Your task to perform on an android device: Go to wifi settings Image 0: 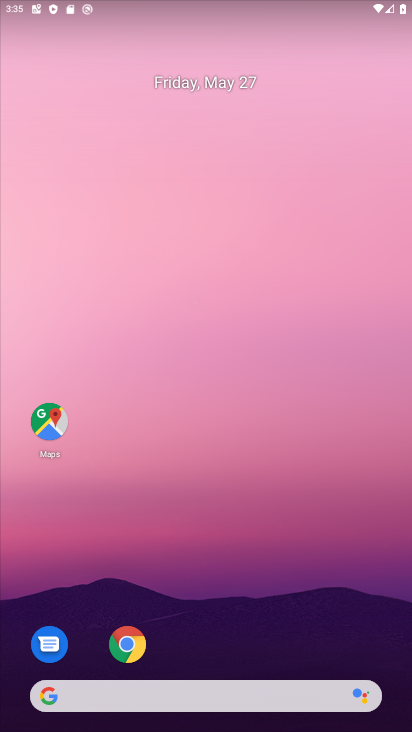
Step 0: drag from (296, 581) to (239, 27)
Your task to perform on an android device: Go to wifi settings Image 1: 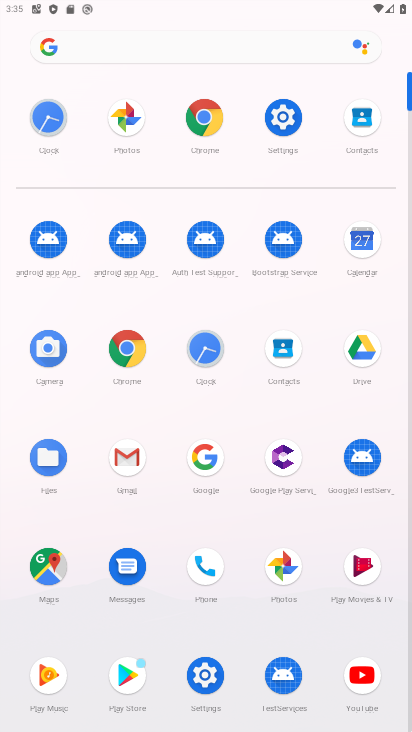
Step 1: click (293, 118)
Your task to perform on an android device: Go to wifi settings Image 2: 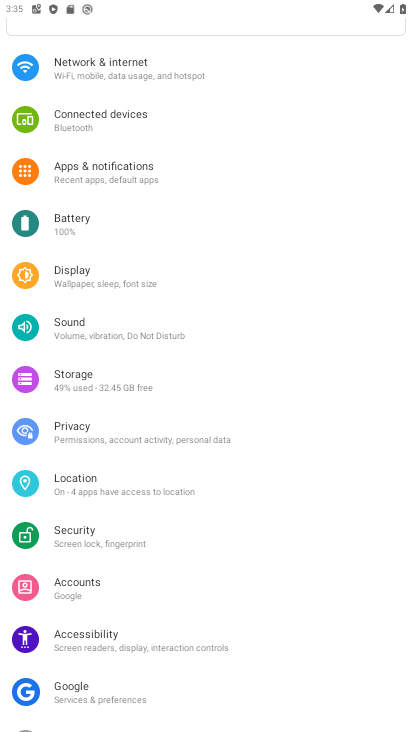
Step 2: drag from (186, 106) to (242, 646)
Your task to perform on an android device: Go to wifi settings Image 3: 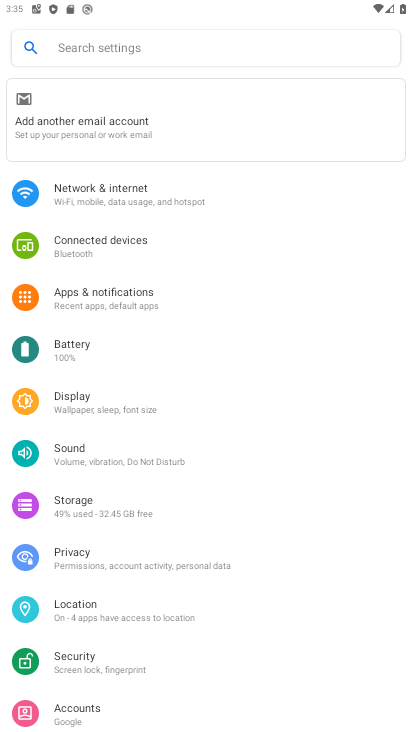
Step 3: click (197, 182)
Your task to perform on an android device: Go to wifi settings Image 4: 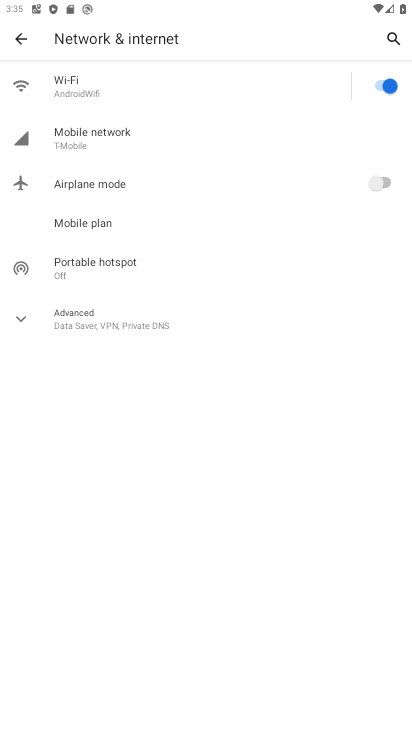
Step 4: click (179, 73)
Your task to perform on an android device: Go to wifi settings Image 5: 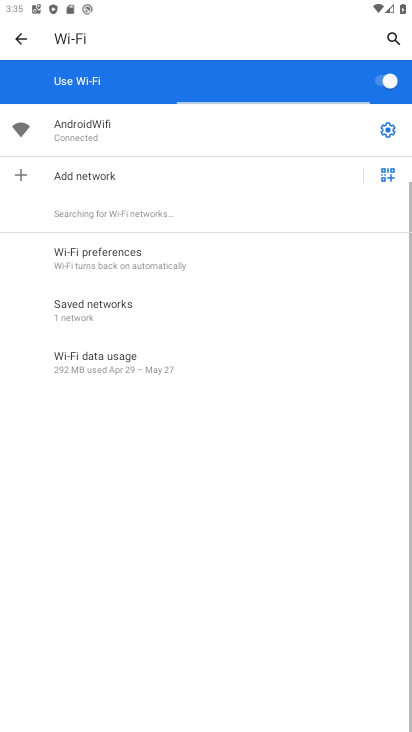
Step 5: task complete